Your task to perform on an android device: Open Chrome and go to settings Image 0: 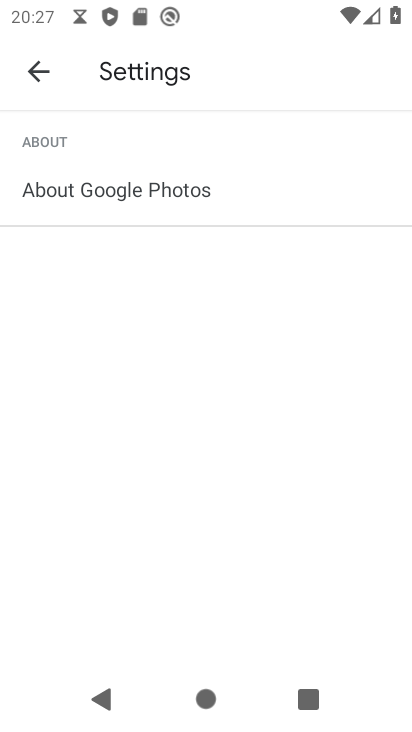
Step 0: press back button
Your task to perform on an android device: Open Chrome and go to settings Image 1: 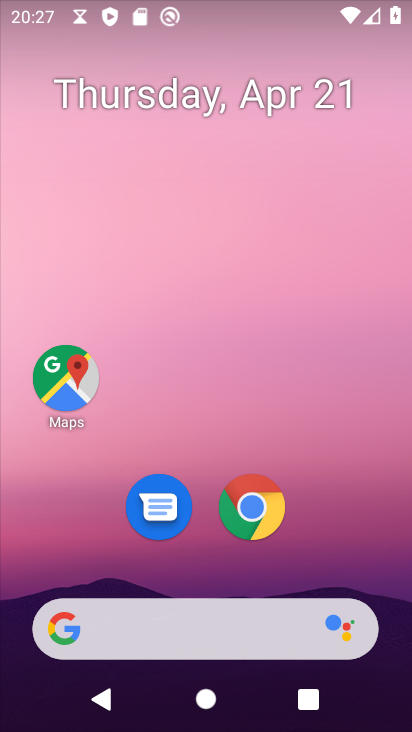
Step 1: click (253, 501)
Your task to perform on an android device: Open Chrome and go to settings Image 2: 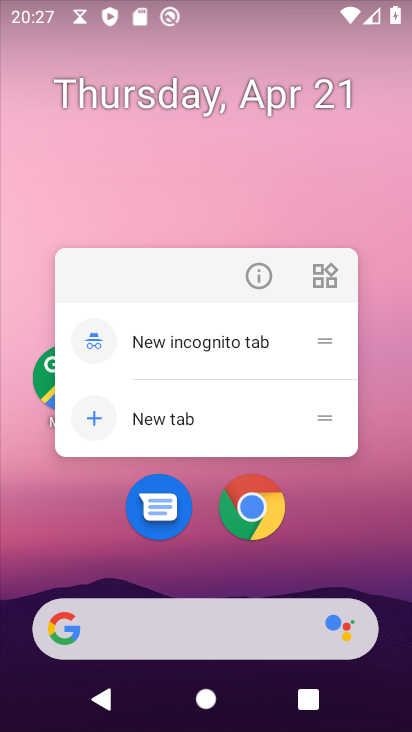
Step 2: click (261, 515)
Your task to perform on an android device: Open Chrome and go to settings Image 3: 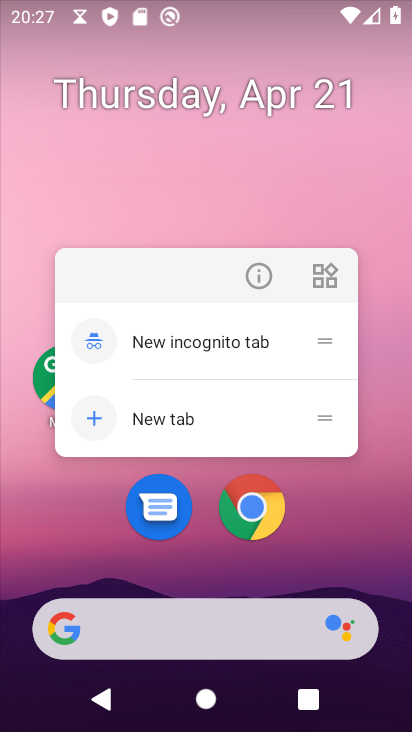
Step 3: click (261, 515)
Your task to perform on an android device: Open Chrome and go to settings Image 4: 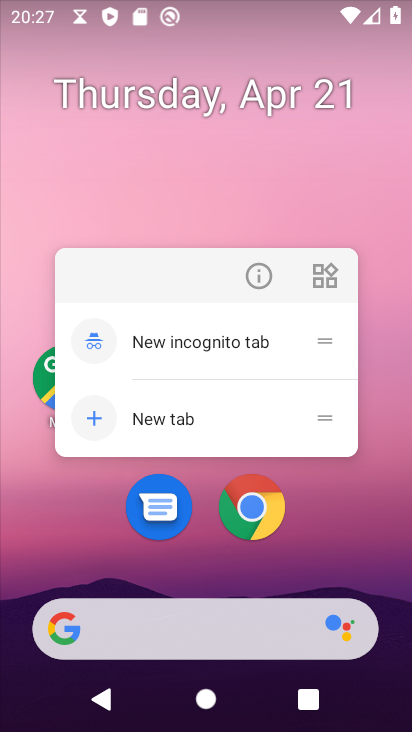
Step 4: click (258, 501)
Your task to perform on an android device: Open Chrome and go to settings Image 5: 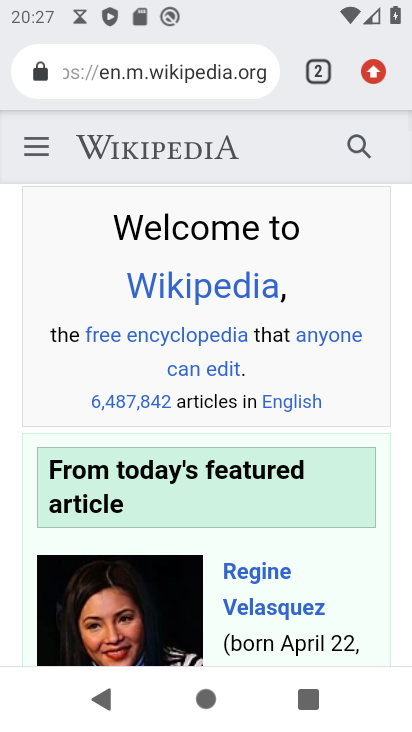
Step 5: task complete